Your task to perform on an android device: Go to Amazon Image 0: 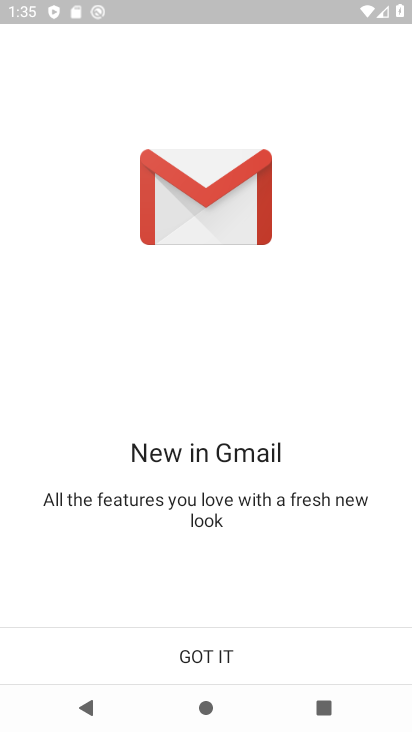
Step 0: press home button
Your task to perform on an android device: Go to Amazon Image 1: 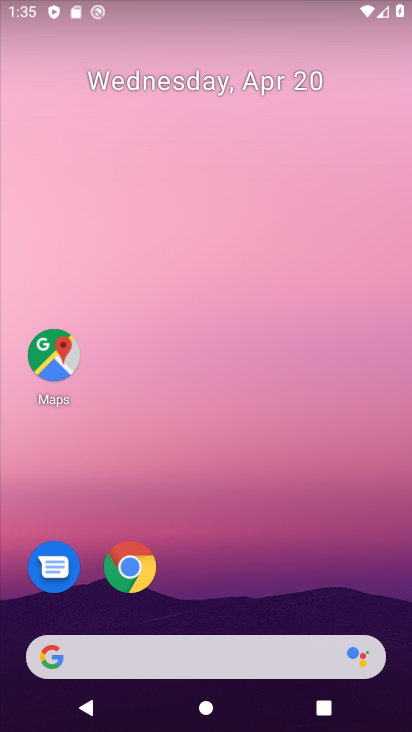
Step 1: drag from (281, 609) to (279, 125)
Your task to perform on an android device: Go to Amazon Image 2: 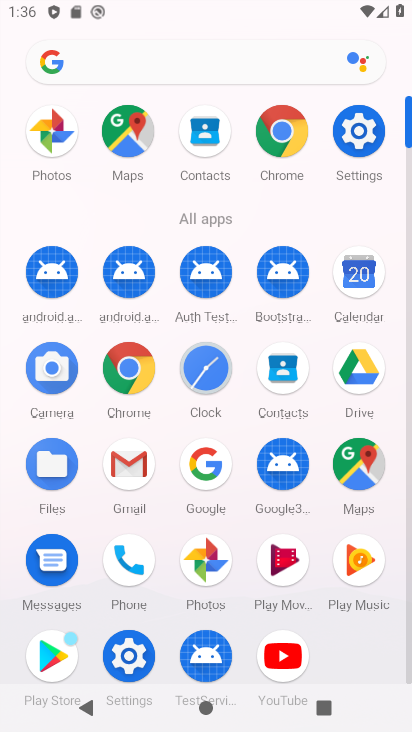
Step 2: click (204, 59)
Your task to perform on an android device: Go to Amazon Image 3: 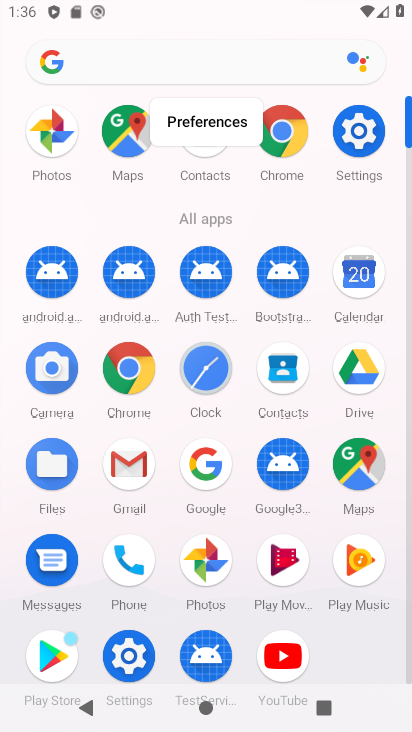
Step 3: click (284, 142)
Your task to perform on an android device: Go to Amazon Image 4: 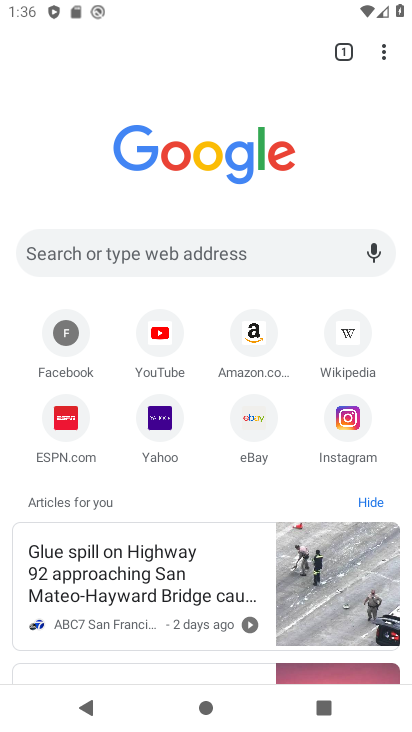
Step 4: click (198, 247)
Your task to perform on an android device: Go to Amazon Image 5: 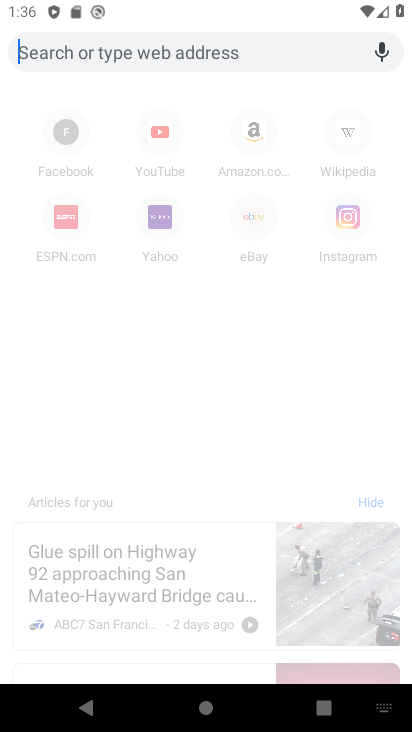
Step 5: type "Amazon"
Your task to perform on an android device: Go to Amazon Image 6: 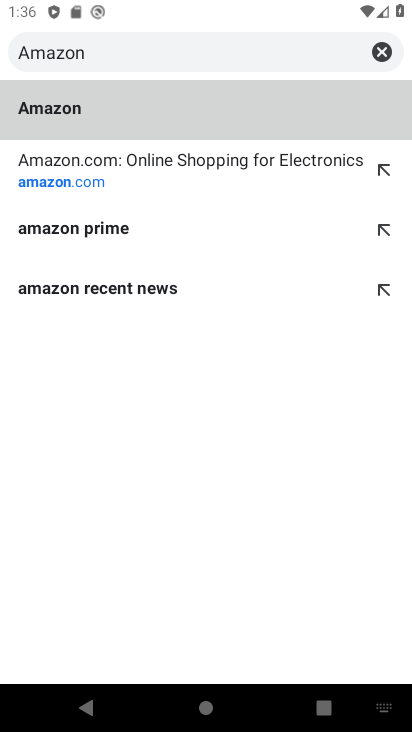
Step 6: click (24, 175)
Your task to perform on an android device: Go to Amazon Image 7: 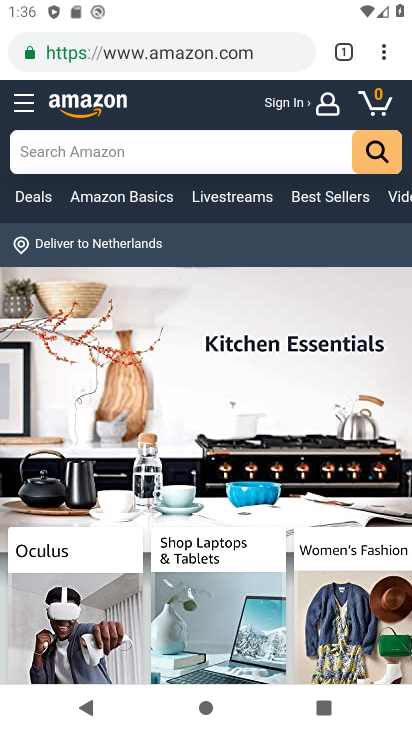
Step 7: task complete